Your task to perform on an android device: Turn off the flashlight Image 0: 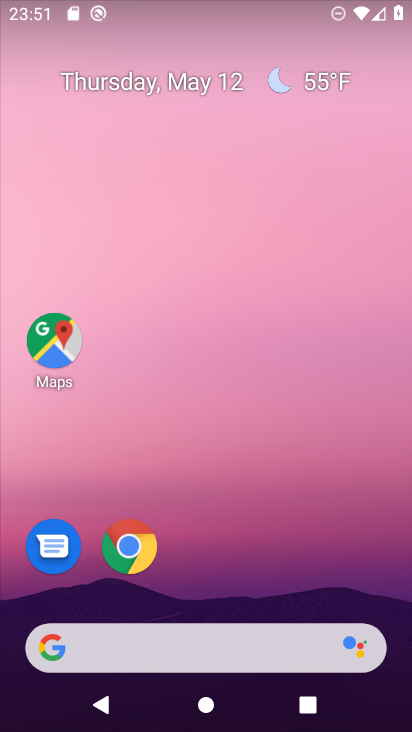
Step 0: drag from (213, 556) to (272, 118)
Your task to perform on an android device: Turn off the flashlight Image 1: 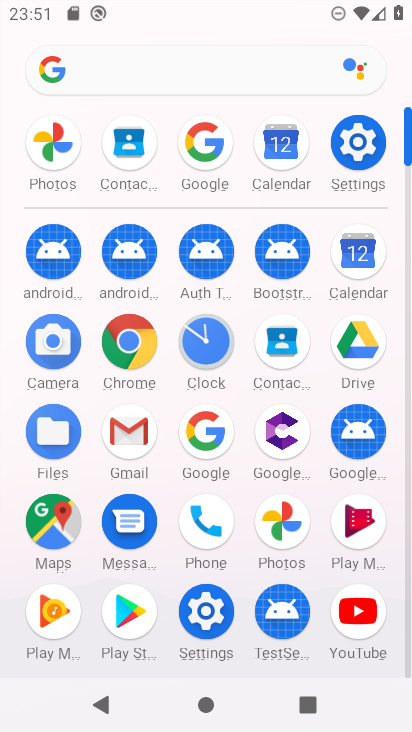
Step 1: click (363, 148)
Your task to perform on an android device: Turn off the flashlight Image 2: 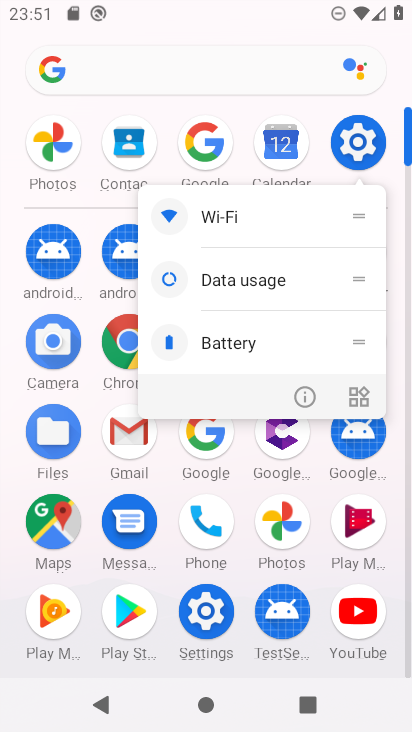
Step 2: click (359, 144)
Your task to perform on an android device: Turn off the flashlight Image 3: 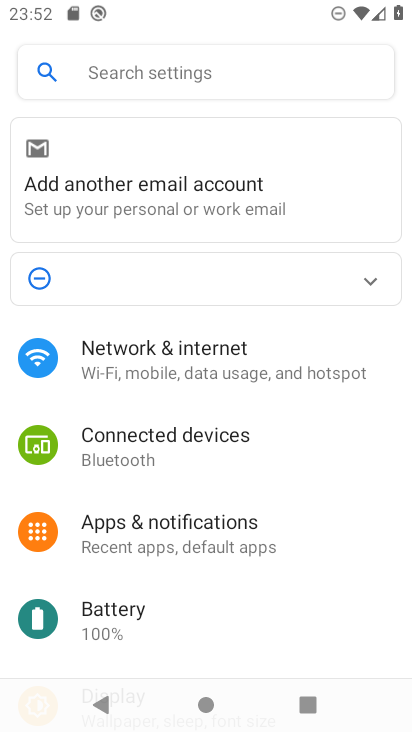
Step 3: drag from (178, 577) to (198, 241)
Your task to perform on an android device: Turn off the flashlight Image 4: 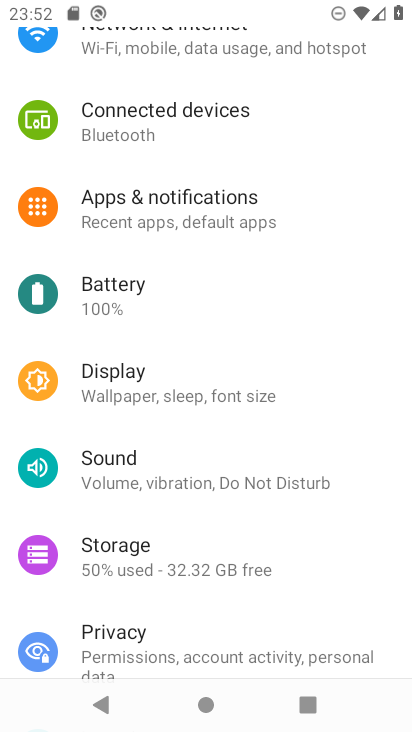
Step 4: click (161, 378)
Your task to perform on an android device: Turn off the flashlight Image 5: 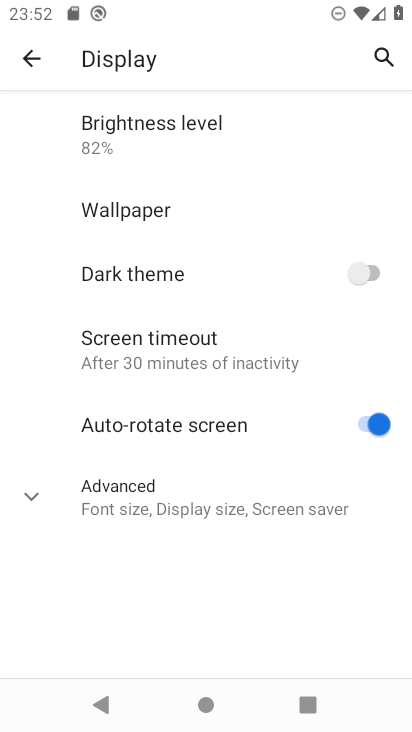
Step 5: task complete